Your task to perform on an android device: Open Amazon Image 0: 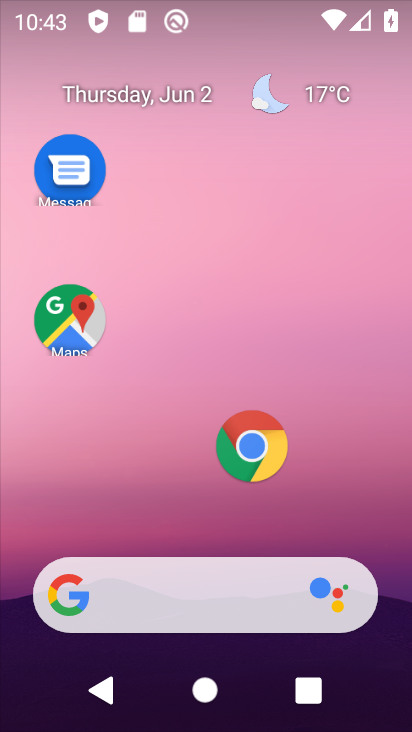
Step 0: click (263, 472)
Your task to perform on an android device: Open Amazon Image 1: 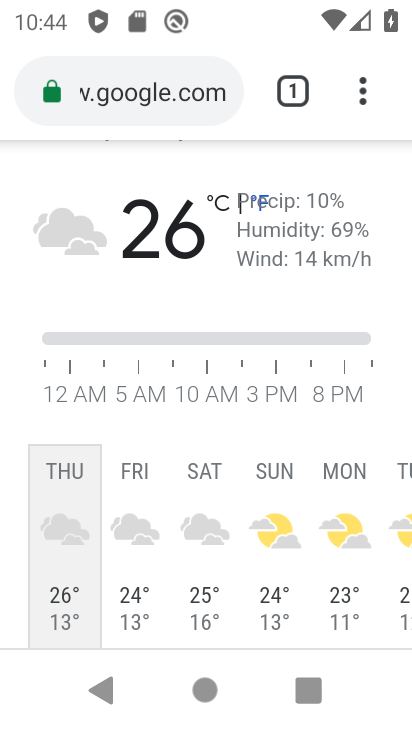
Step 1: drag from (366, 76) to (209, 199)
Your task to perform on an android device: Open Amazon Image 2: 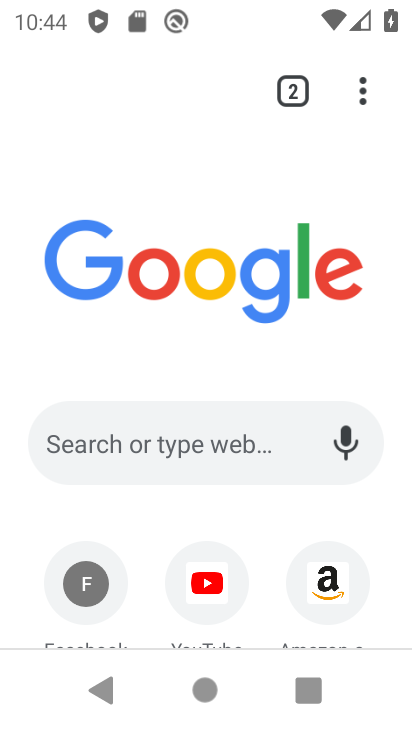
Step 2: click (328, 575)
Your task to perform on an android device: Open Amazon Image 3: 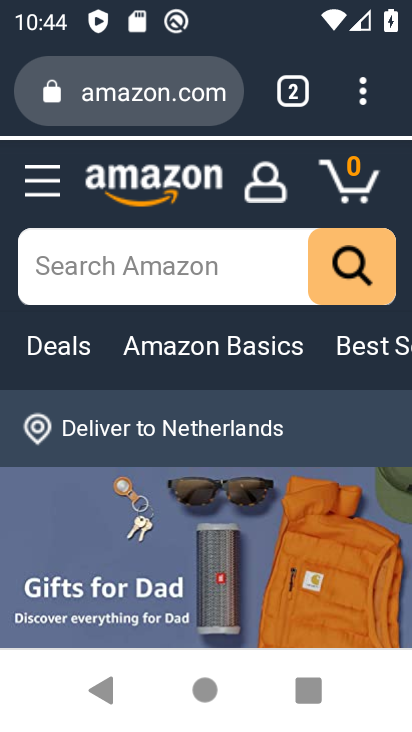
Step 3: task complete